Your task to perform on an android device: Open Google Chrome and click the shortcut for Amazon.com Image 0: 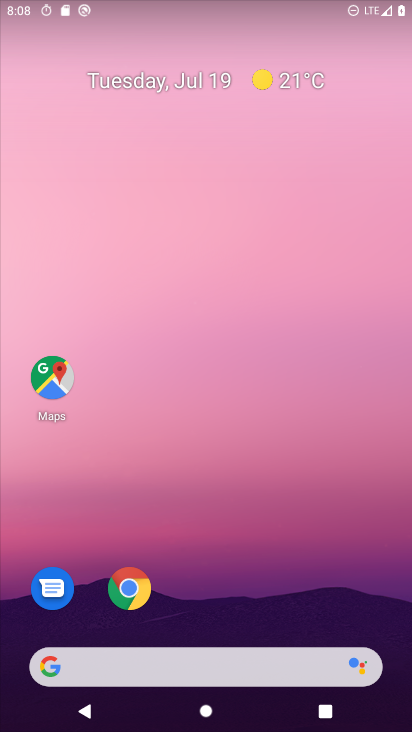
Step 0: drag from (262, 576) to (296, 173)
Your task to perform on an android device: Open Google Chrome and click the shortcut for Amazon.com Image 1: 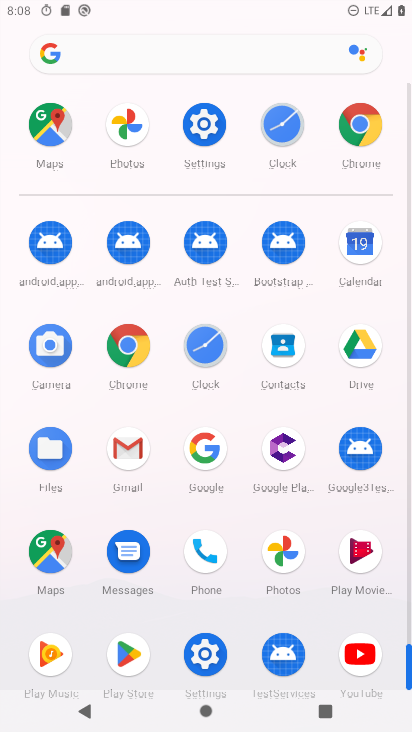
Step 1: click (141, 364)
Your task to perform on an android device: Open Google Chrome and click the shortcut for Amazon.com Image 2: 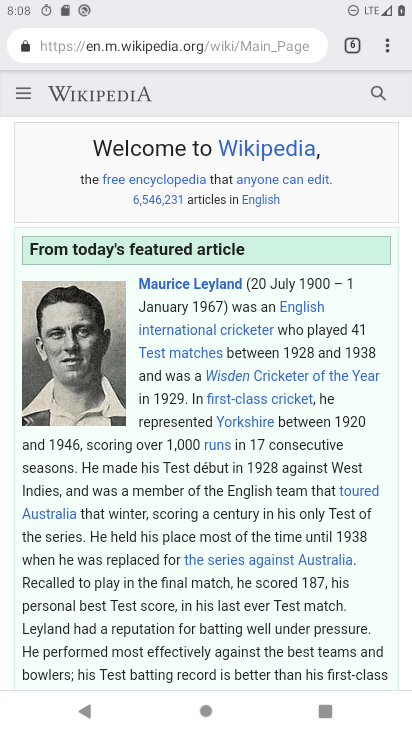
Step 2: click (360, 45)
Your task to perform on an android device: Open Google Chrome and click the shortcut for Amazon.com Image 3: 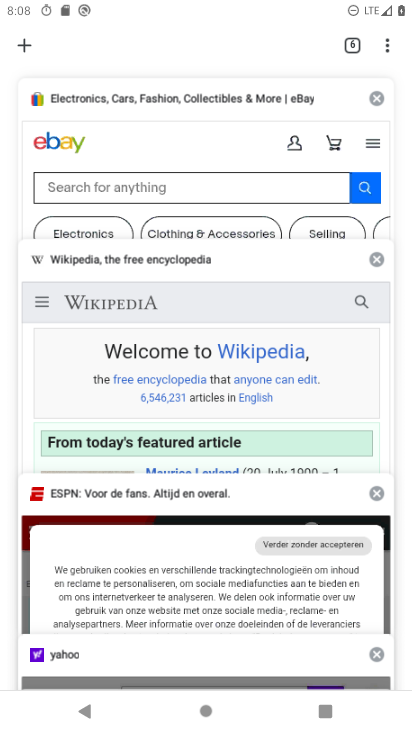
Step 3: click (17, 48)
Your task to perform on an android device: Open Google Chrome and click the shortcut for Amazon.com Image 4: 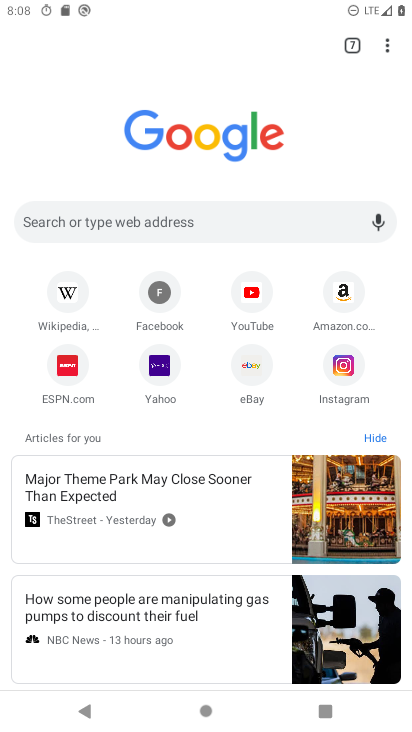
Step 4: click (340, 298)
Your task to perform on an android device: Open Google Chrome and click the shortcut for Amazon.com Image 5: 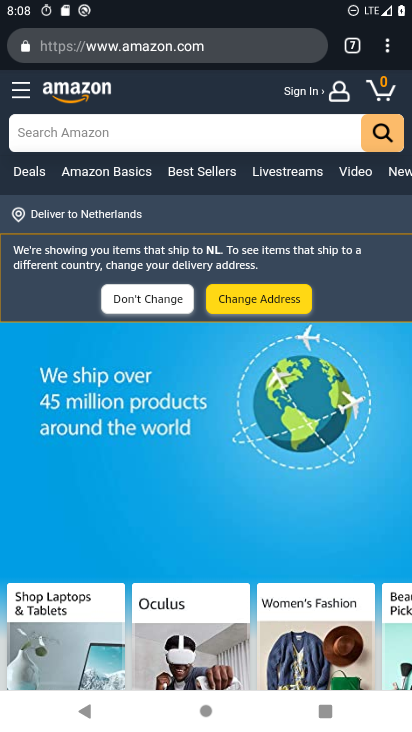
Step 5: task complete